Your task to perform on an android device: Open the calendar app, open the side menu, and click the "Day" option Image 0: 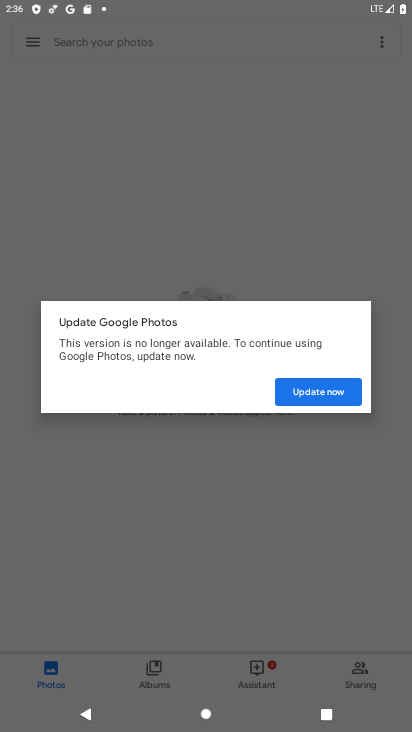
Step 0: press home button
Your task to perform on an android device: Open the calendar app, open the side menu, and click the "Day" option Image 1: 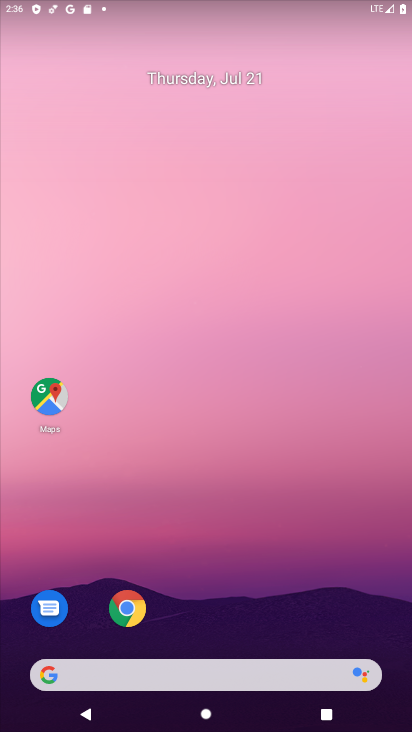
Step 1: drag from (233, 657) to (225, 102)
Your task to perform on an android device: Open the calendar app, open the side menu, and click the "Day" option Image 2: 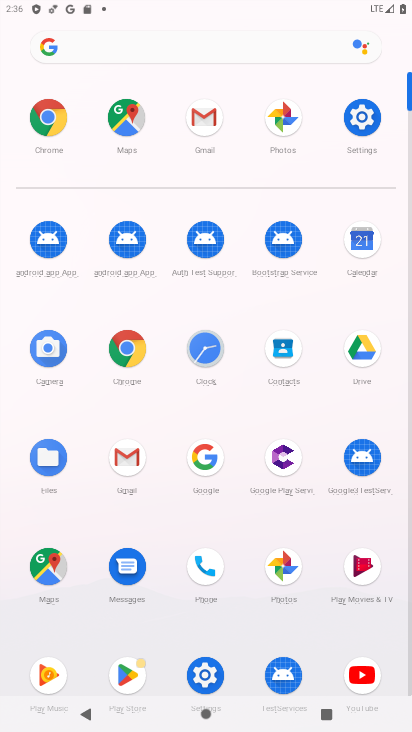
Step 2: click (370, 246)
Your task to perform on an android device: Open the calendar app, open the side menu, and click the "Day" option Image 3: 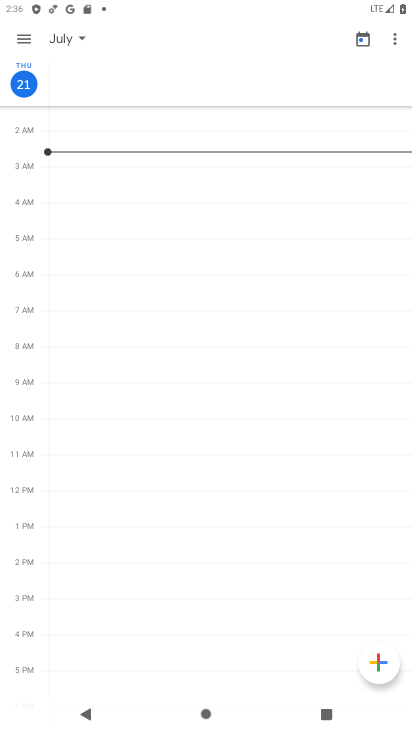
Step 3: click (24, 32)
Your task to perform on an android device: Open the calendar app, open the side menu, and click the "Day" option Image 4: 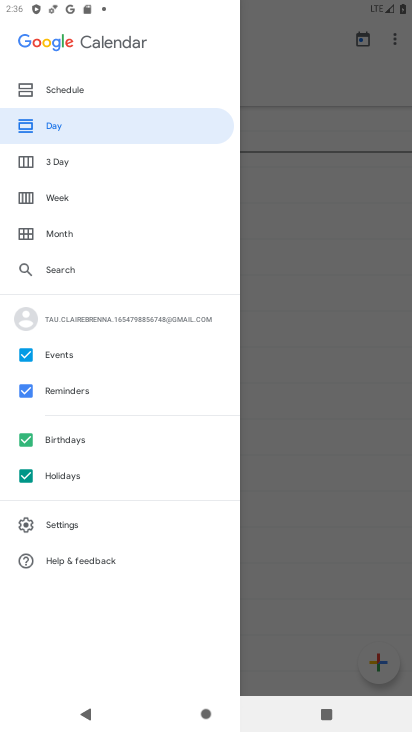
Step 4: click (59, 131)
Your task to perform on an android device: Open the calendar app, open the side menu, and click the "Day" option Image 5: 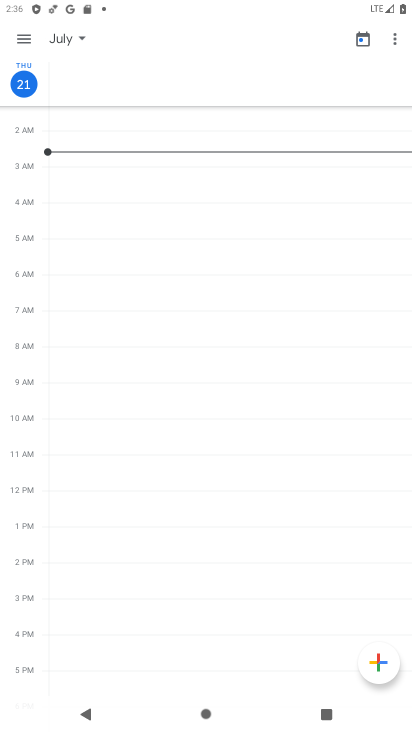
Step 5: task complete